Your task to perform on an android device: Open network settings Image 0: 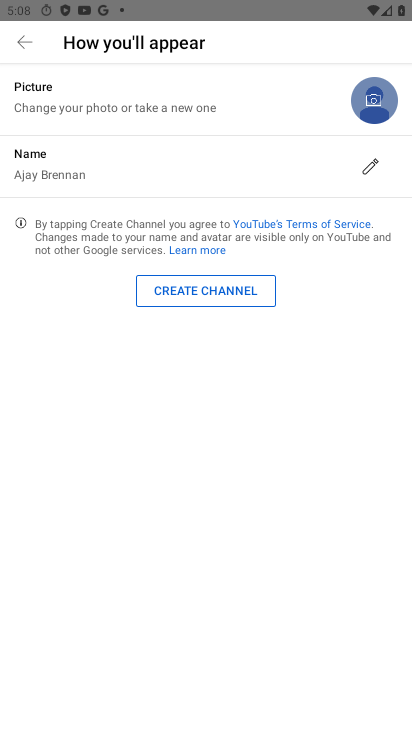
Step 0: press home button
Your task to perform on an android device: Open network settings Image 1: 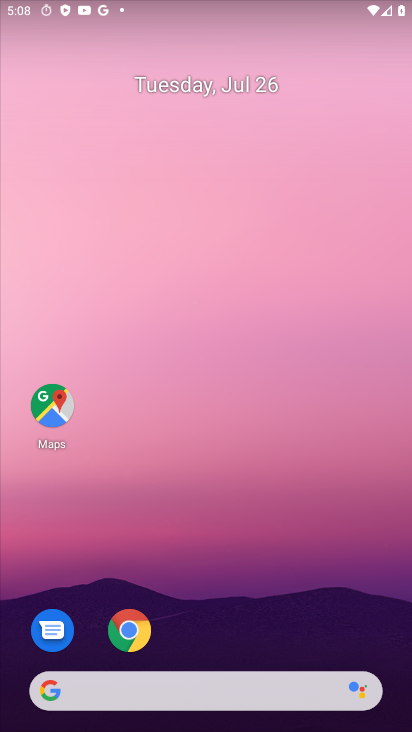
Step 1: drag from (285, 603) to (221, 34)
Your task to perform on an android device: Open network settings Image 2: 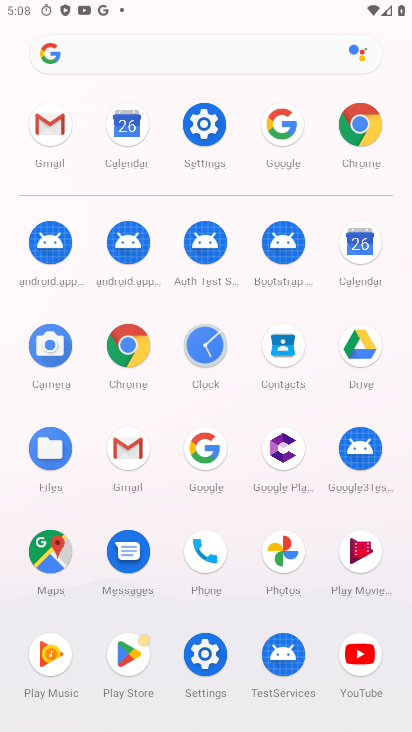
Step 2: click (209, 127)
Your task to perform on an android device: Open network settings Image 3: 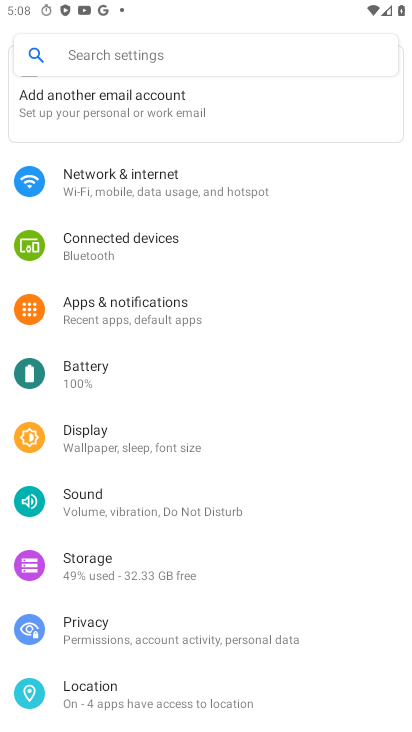
Step 3: click (142, 187)
Your task to perform on an android device: Open network settings Image 4: 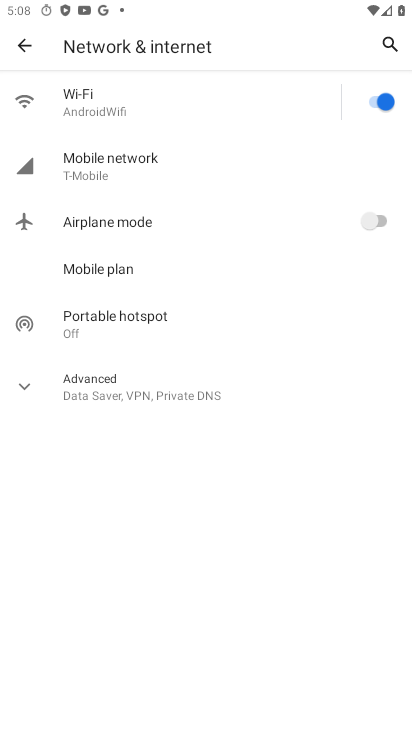
Step 4: click (186, 391)
Your task to perform on an android device: Open network settings Image 5: 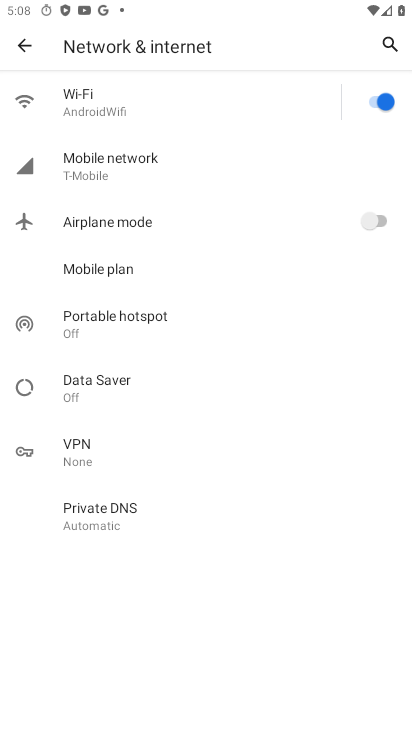
Step 5: task complete